Your task to perform on an android device: change timer sound Image 0: 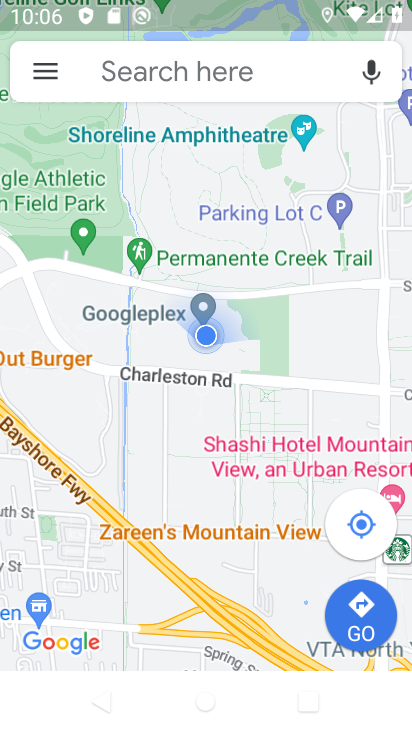
Step 0: press home button
Your task to perform on an android device: change timer sound Image 1: 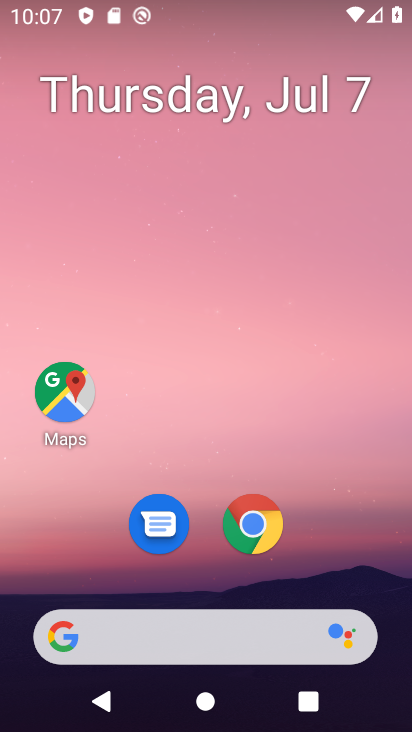
Step 1: drag from (213, 461) to (259, 15)
Your task to perform on an android device: change timer sound Image 2: 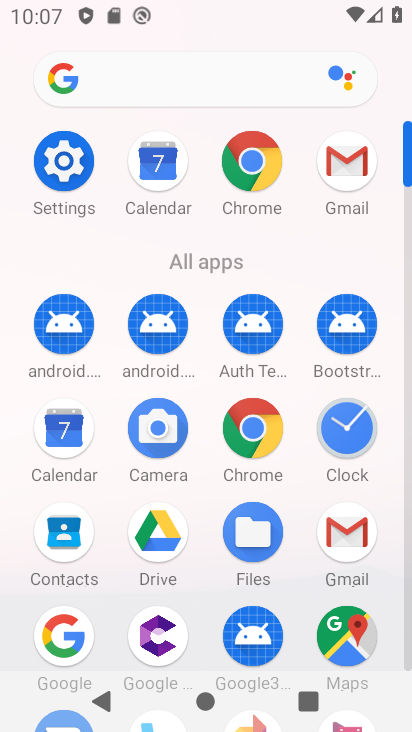
Step 2: click (357, 421)
Your task to perform on an android device: change timer sound Image 3: 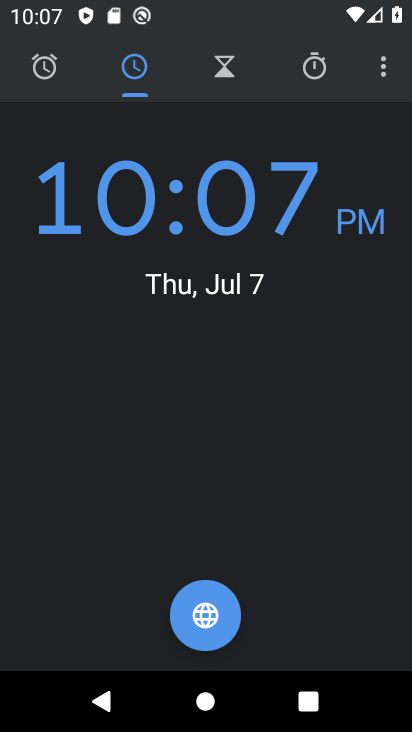
Step 3: click (386, 69)
Your task to perform on an android device: change timer sound Image 4: 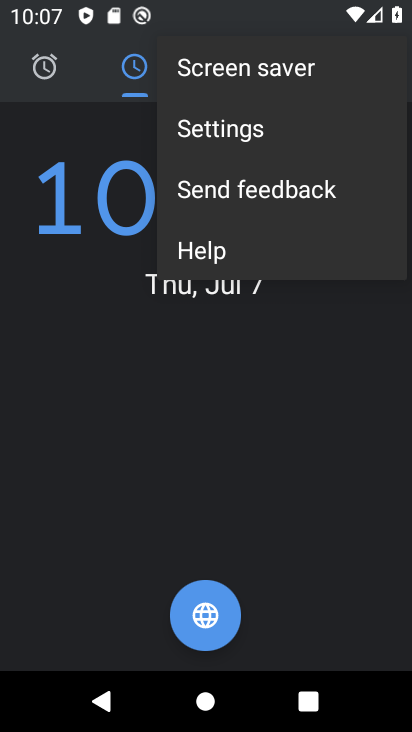
Step 4: click (294, 126)
Your task to perform on an android device: change timer sound Image 5: 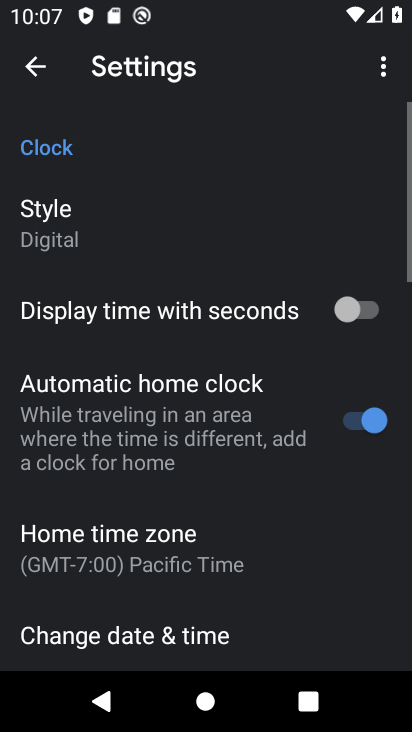
Step 5: drag from (217, 545) to (286, 50)
Your task to perform on an android device: change timer sound Image 6: 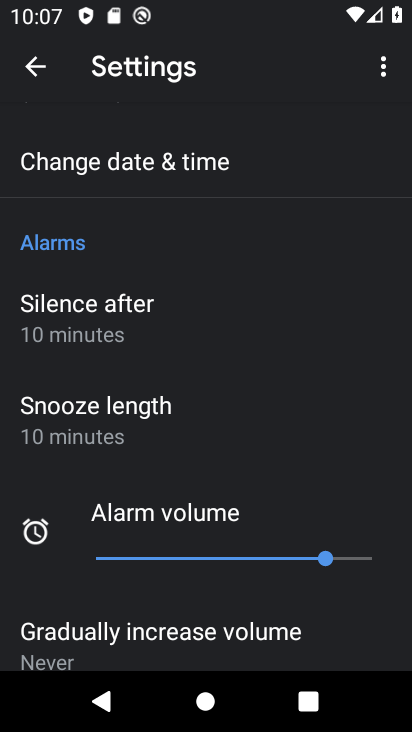
Step 6: drag from (232, 450) to (258, 103)
Your task to perform on an android device: change timer sound Image 7: 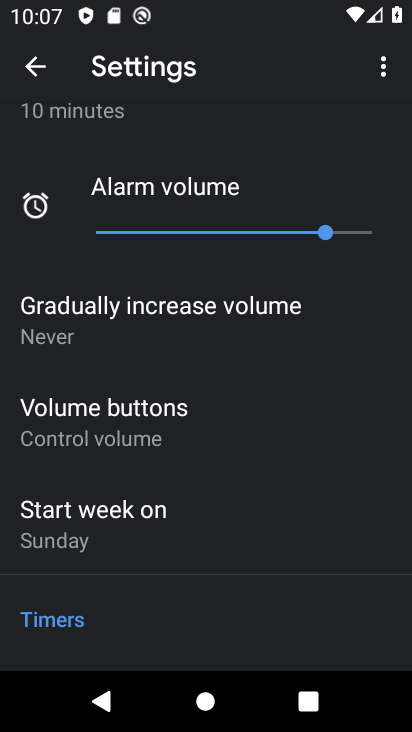
Step 7: drag from (197, 437) to (239, 145)
Your task to perform on an android device: change timer sound Image 8: 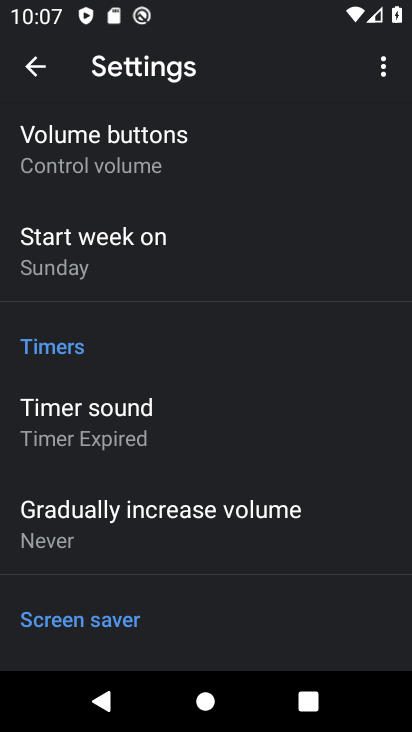
Step 8: click (144, 423)
Your task to perform on an android device: change timer sound Image 9: 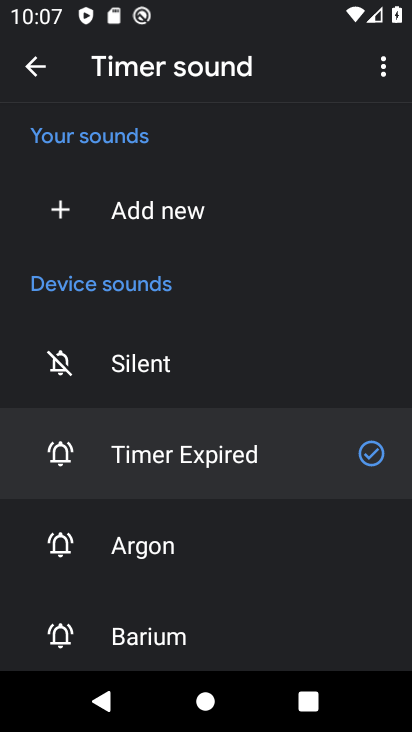
Step 9: click (140, 623)
Your task to perform on an android device: change timer sound Image 10: 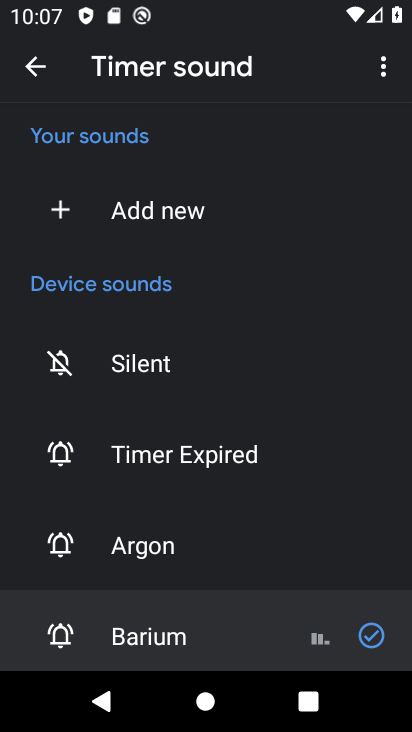
Step 10: task complete